Your task to perform on an android device: change keyboard looks Image 0: 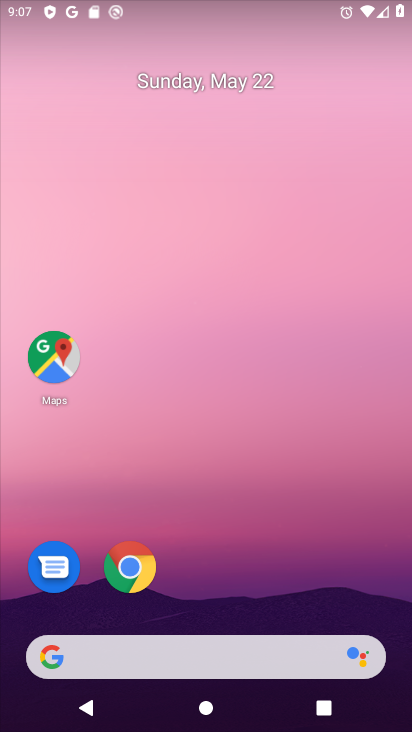
Step 0: drag from (248, 622) to (271, 88)
Your task to perform on an android device: change keyboard looks Image 1: 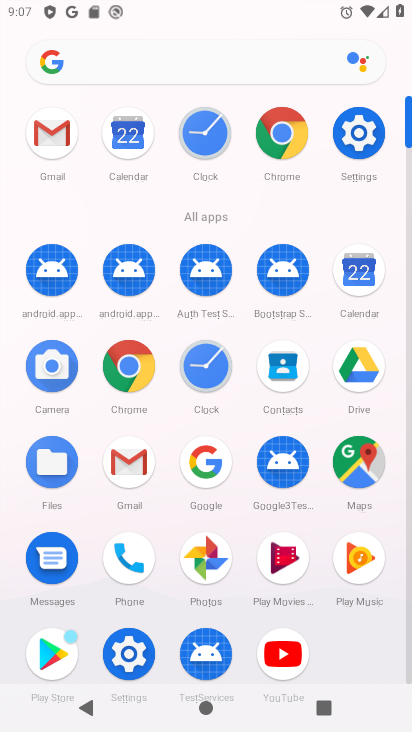
Step 1: click (360, 146)
Your task to perform on an android device: change keyboard looks Image 2: 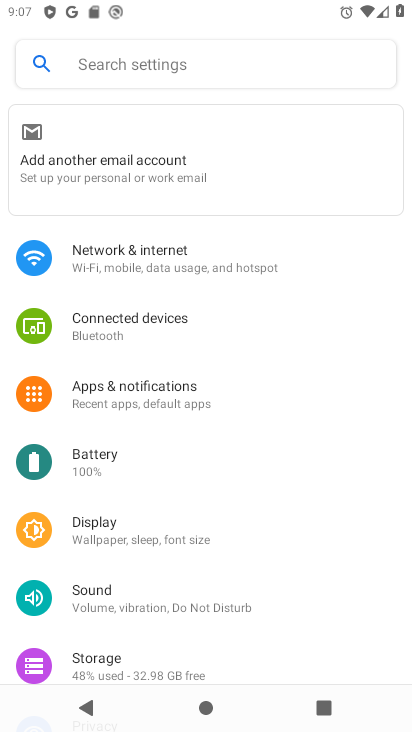
Step 2: drag from (134, 595) to (177, 326)
Your task to perform on an android device: change keyboard looks Image 3: 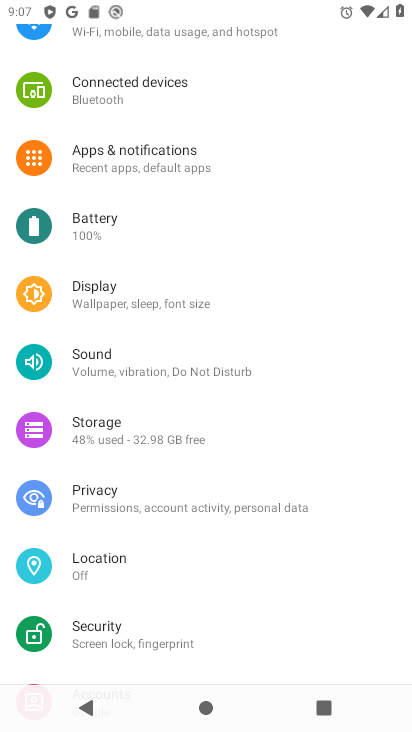
Step 3: drag from (156, 578) to (190, 202)
Your task to perform on an android device: change keyboard looks Image 4: 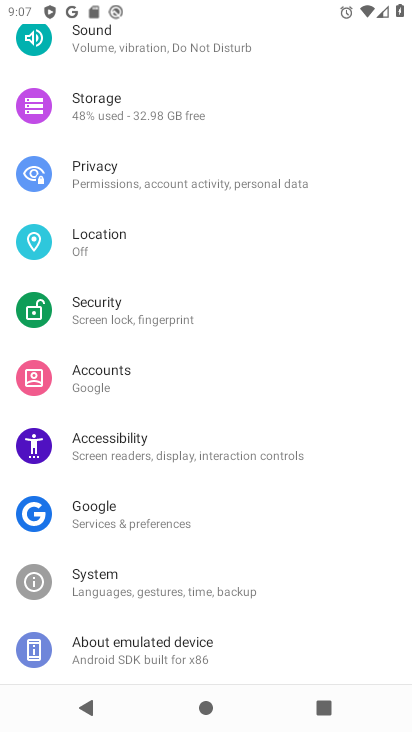
Step 4: click (162, 585)
Your task to perform on an android device: change keyboard looks Image 5: 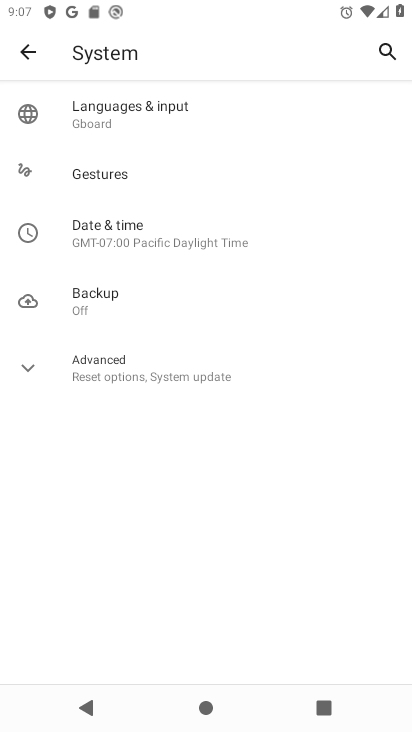
Step 5: click (131, 120)
Your task to perform on an android device: change keyboard looks Image 6: 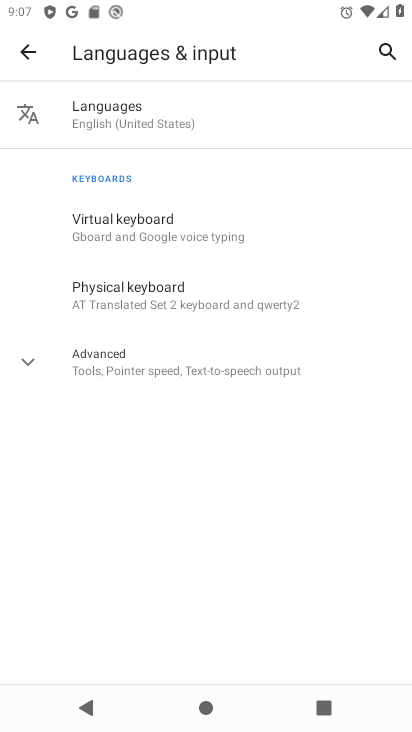
Step 6: click (161, 225)
Your task to perform on an android device: change keyboard looks Image 7: 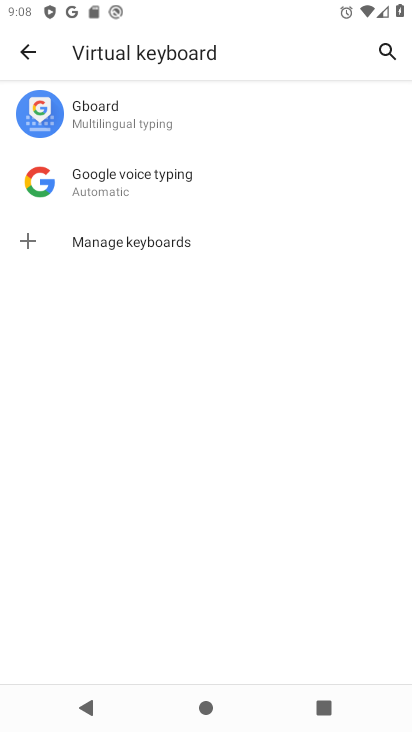
Step 7: click (121, 124)
Your task to perform on an android device: change keyboard looks Image 8: 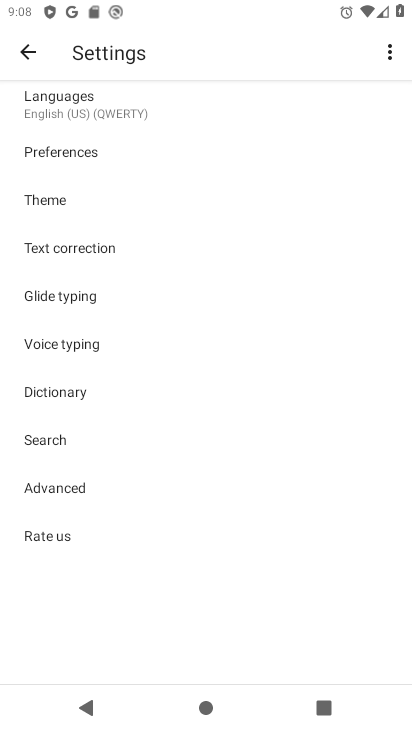
Step 8: click (49, 198)
Your task to perform on an android device: change keyboard looks Image 9: 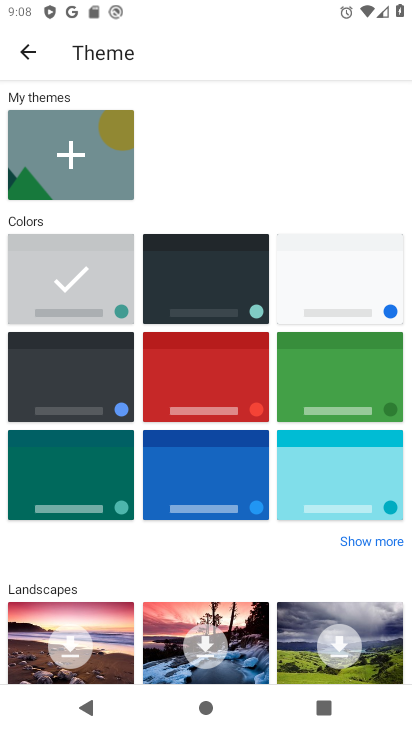
Step 9: click (217, 273)
Your task to perform on an android device: change keyboard looks Image 10: 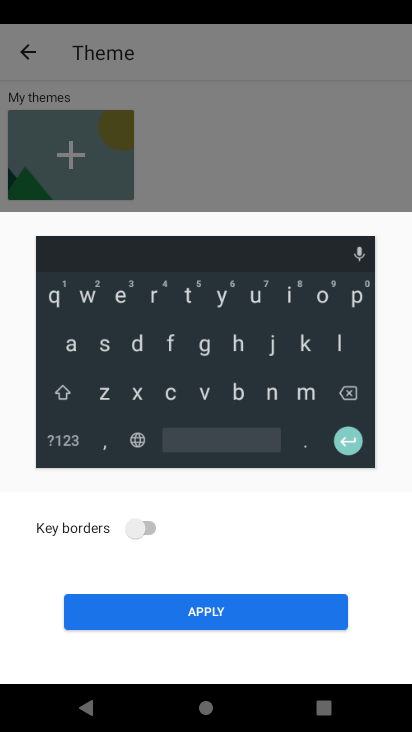
Step 10: click (213, 610)
Your task to perform on an android device: change keyboard looks Image 11: 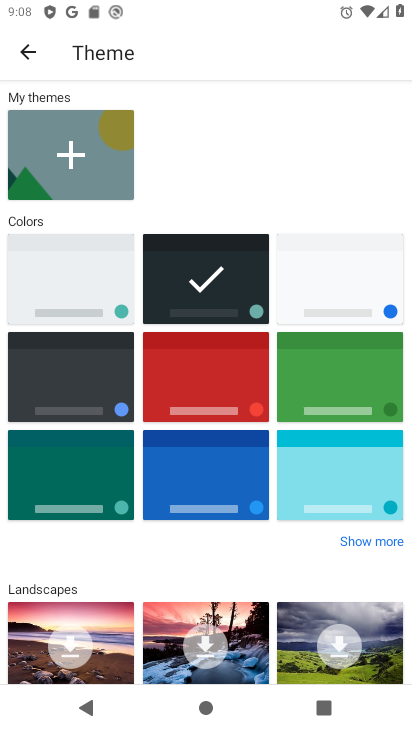
Step 11: task complete